Your task to perform on an android device: check storage Image 0: 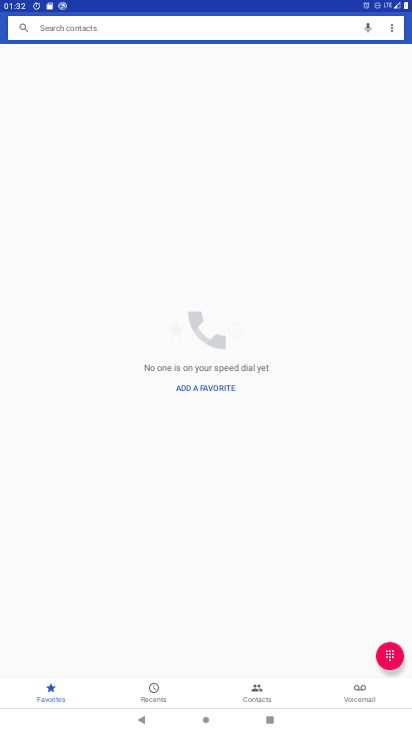
Step 0: drag from (31, 690) to (183, 195)
Your task to perform on an android device: check storage Image 1: 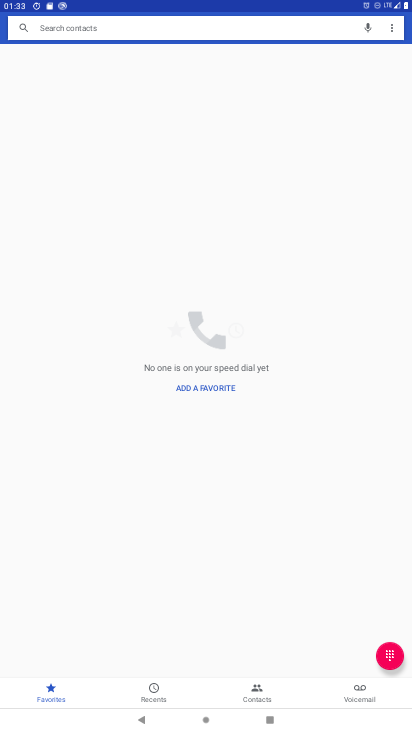
Step 1: press home button
Your task to perform on an android device: check storage Image 2: 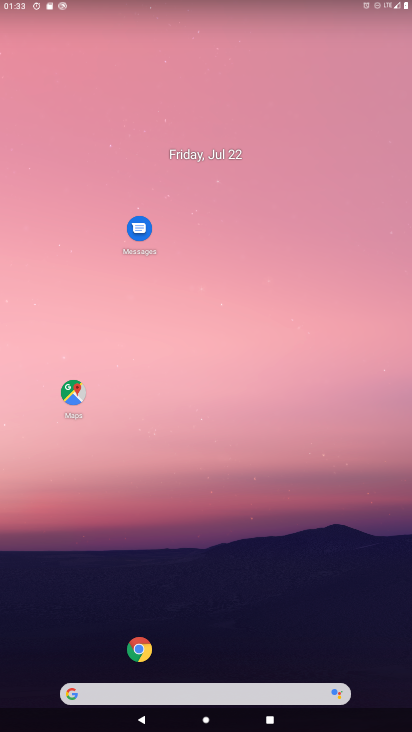
Step 2: drag from (19, 693) to (195, 124)
Your task to perform on an android device: check storage Image 3: 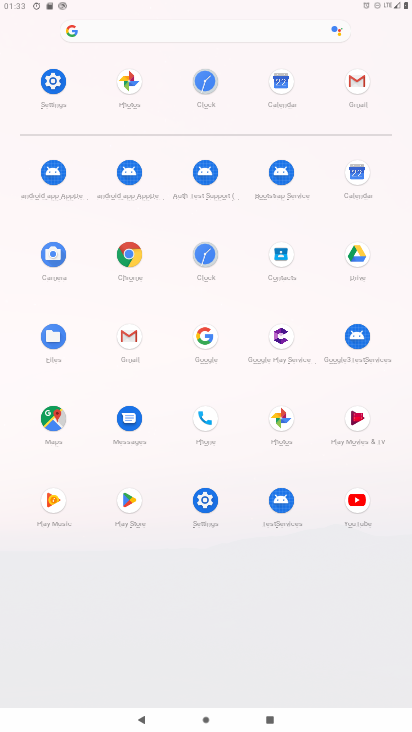
Step 3: click (197, 503)
Your task to perform on an android device: check storage Image 4: 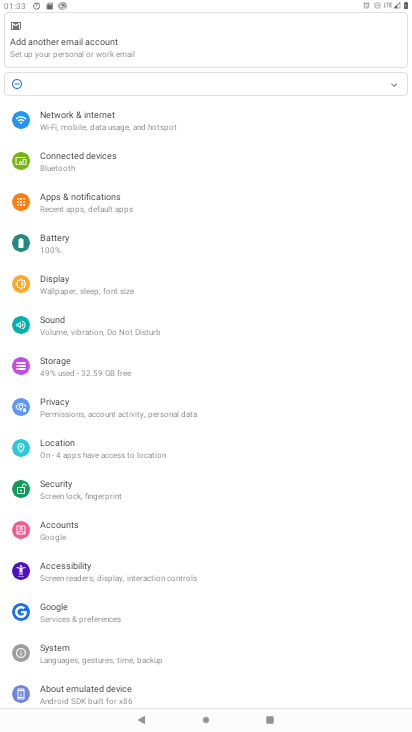
Step 4: click (63, 363)
Your task to perform on an android device: check storage Image 5: 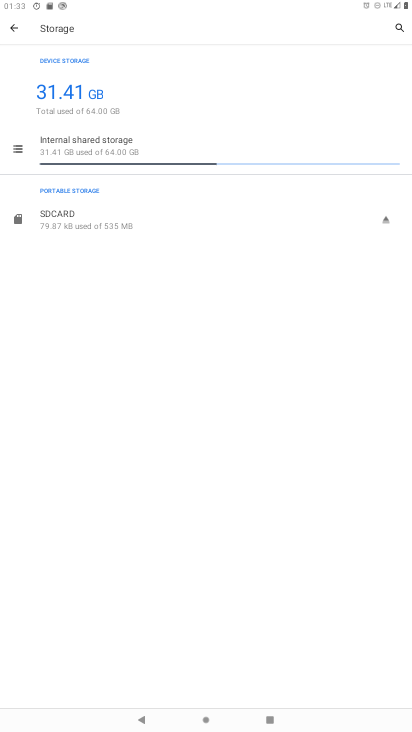
Step 5: task complete